Your task to perform on an android device: turn on showing notifications on the lock screen Image 0: 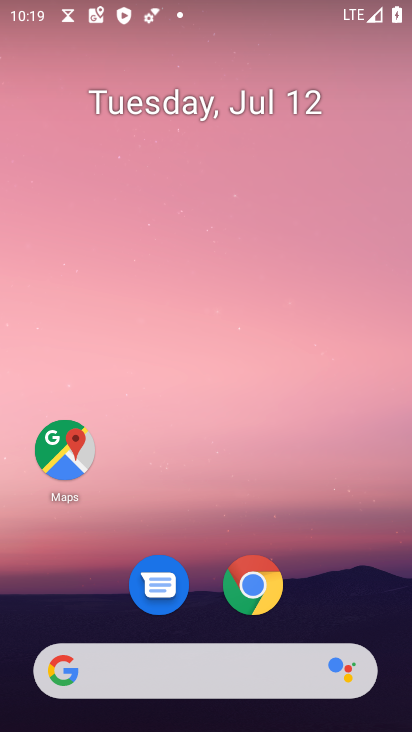
Step 0: press home button
Your task to perform on an android device: turn on showing notifications on the lock screen Image 1: 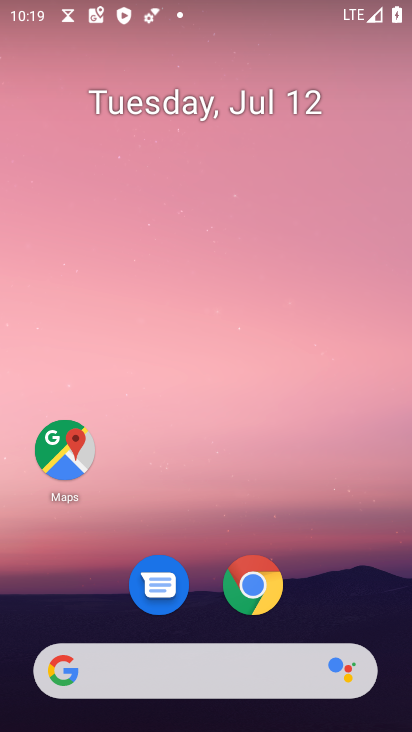
Step 1: drag from (221, 675) to (266, 196)
Your task to perform on an android device: turn on showing notifications on the lock screen Image 2: 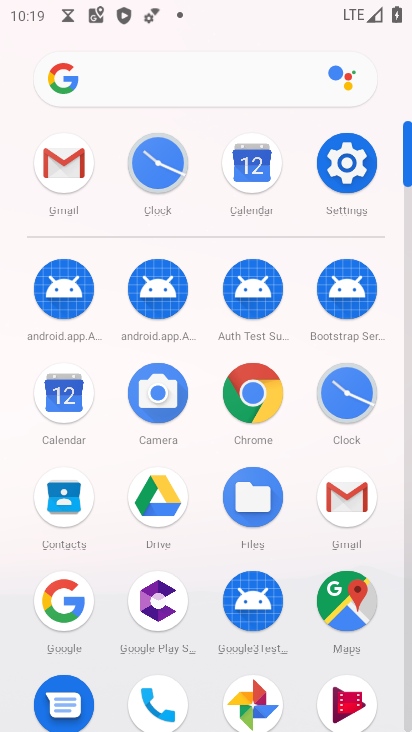
Step 2: click (346, 170)
Your task to perform on an android device: turn on showing notifications on the lock screen Image 3: 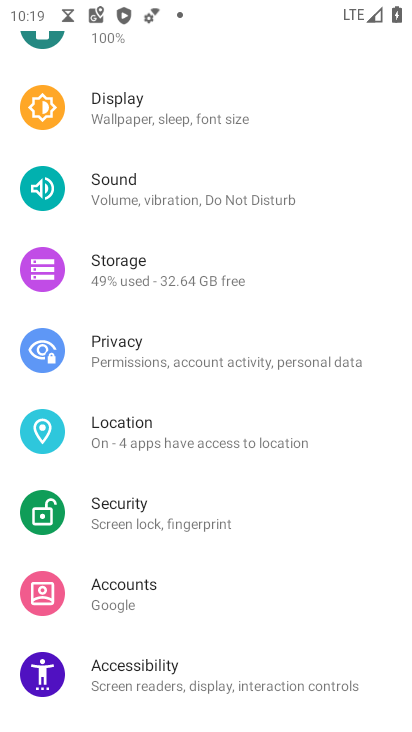
Step 3: drag from (337, 248) to (274, 615)
Your task to perform on an android device: turn on showing notifications on the lock screen Image 4: 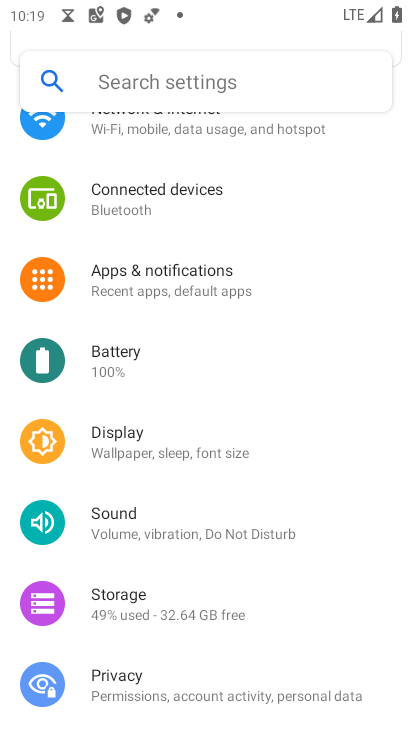
Step 4: click (209, 283)
Your task to perform on an android device: turn on showing notifications on the lock screen Image 5: 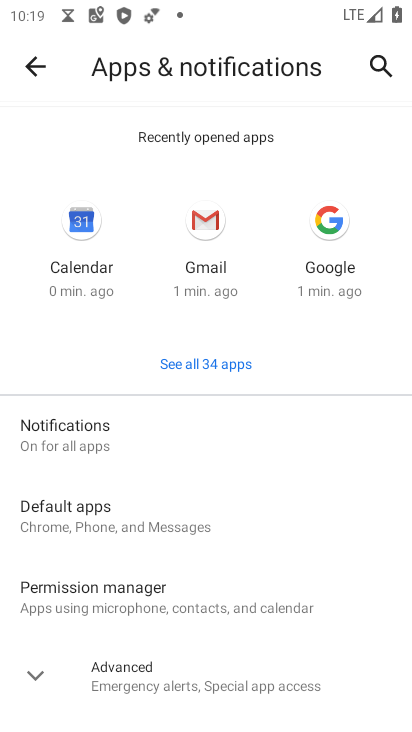
Step 5: click (54, 421)
Your task to perform on an android device: turn on showing notifications on the lock screen Image 6: 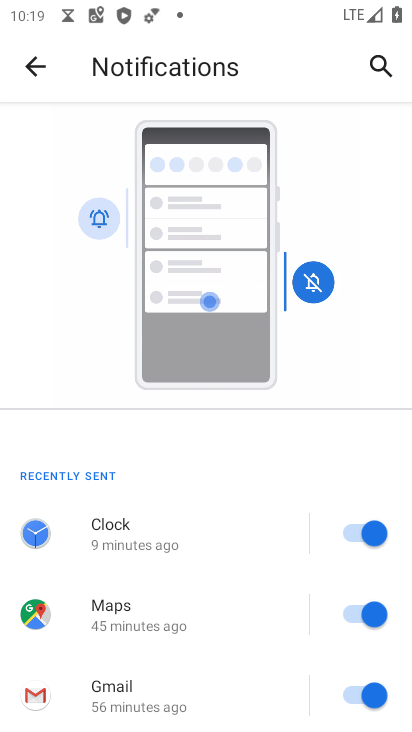
Step 6: drag from (198, 602) to (318, 115)
Your task to perform on an android device: turn on showing notifications on the lock screen Image 7: 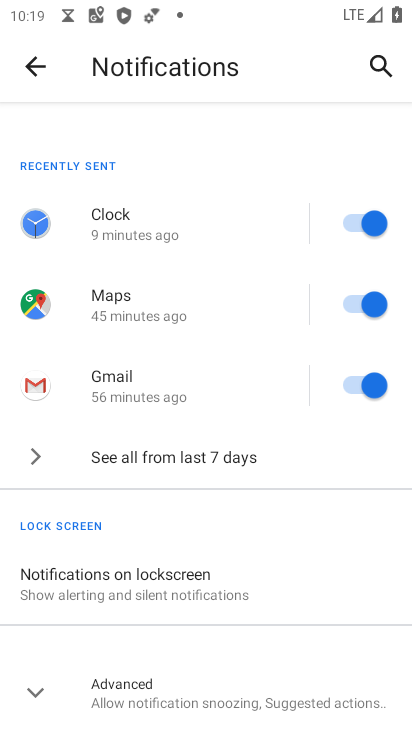
Step 7: click (170, 573)
Your task to perform on an android device: turn on showing notifications on the lock screen Image 8: 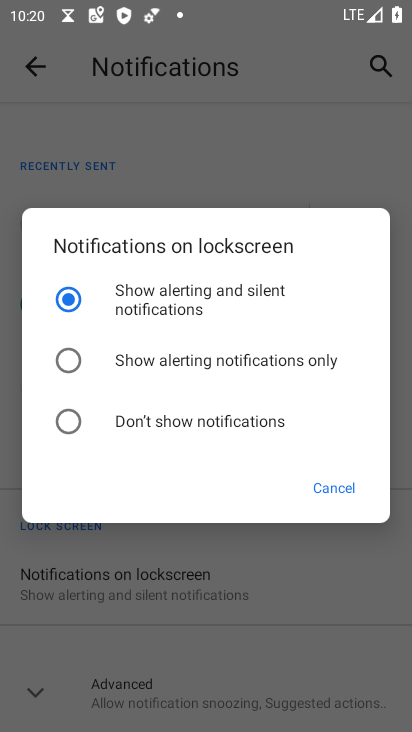
Step 8: task complete